Your task to perform on an android device: Go to calendar. Show me events next week Image 0: 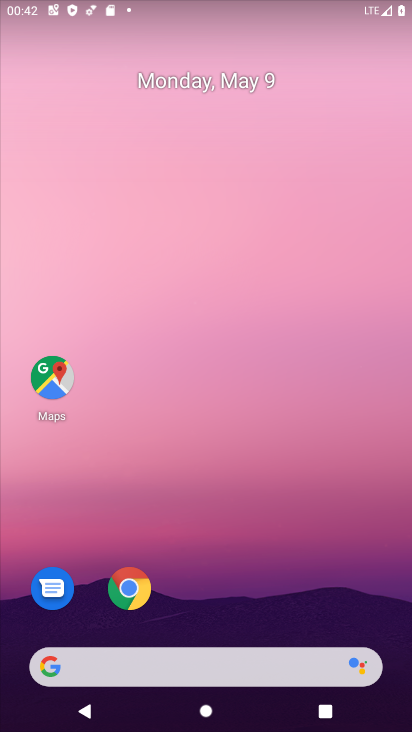
Step 0: drag from (273, 595) to (268, 44)
Your task to perform on an android device: Go to calendar. Show me events next week Image 1: 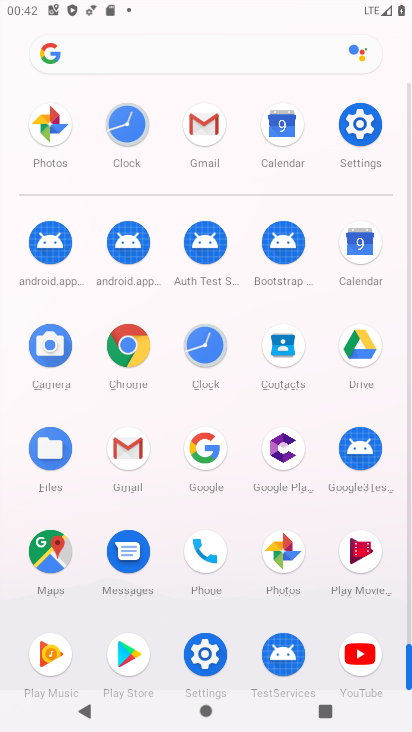
Step 1: click (360, 248)
Your task to perform on an android device: Go to calendar. Show me events next week Image 2: 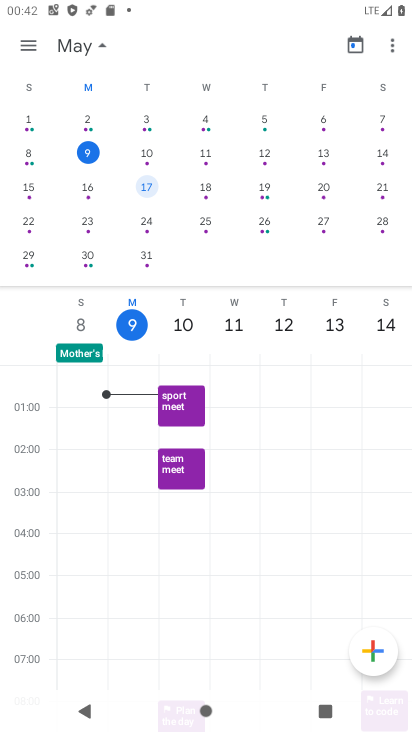
Step 2: click (88, 192)
Your task to perform on an android device: Go to calendar. Show me events next week Image 3: 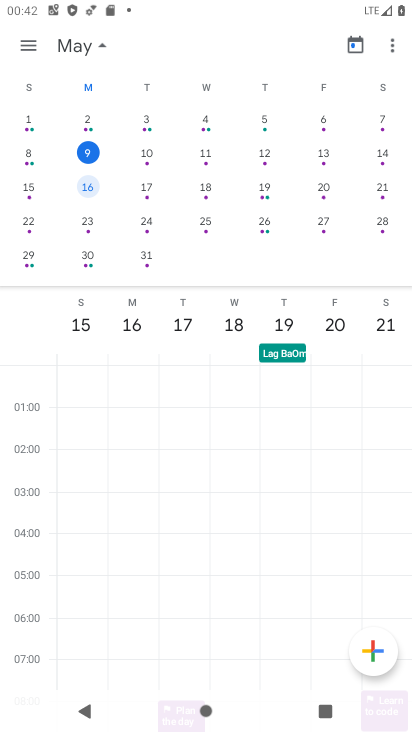
Step 3: task complete